Your task to perform on an android device: Open Android settings Image 0: 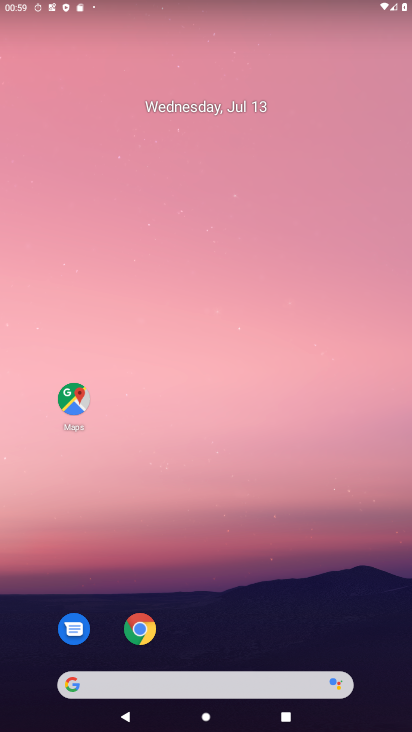
Step 0: drag from (206, 633) to (174, 368)
Your task to perform on an android device: Open Android settings Image 1: 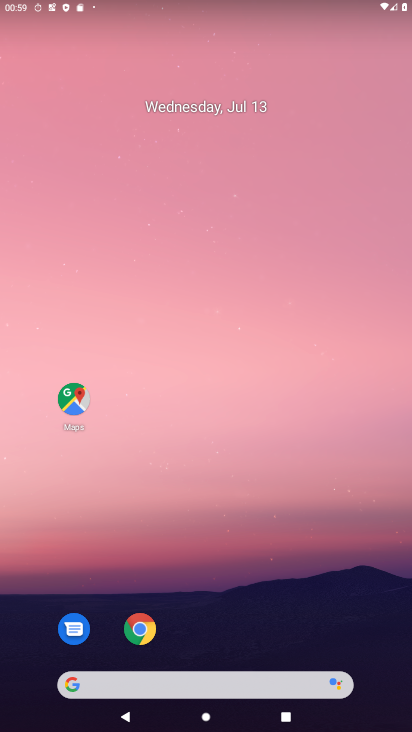
Step 1: drag from (255, 633) to (289, 1)
Your task to perform on an android device: Open Android settings Image 2: 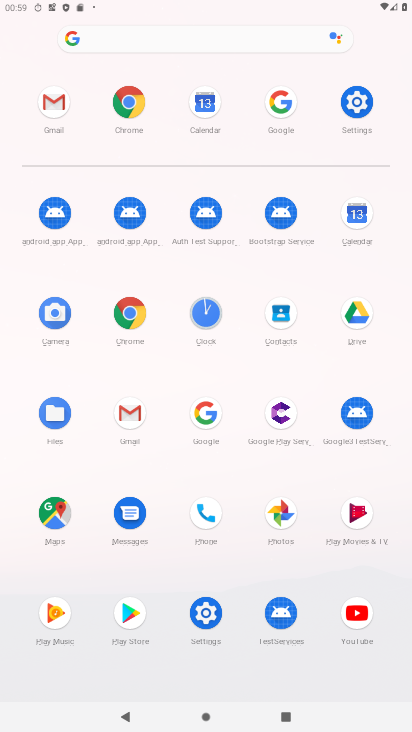
Step 2: click (360, 102)
Your task to perform on an android device: Open Android settings Image 3: 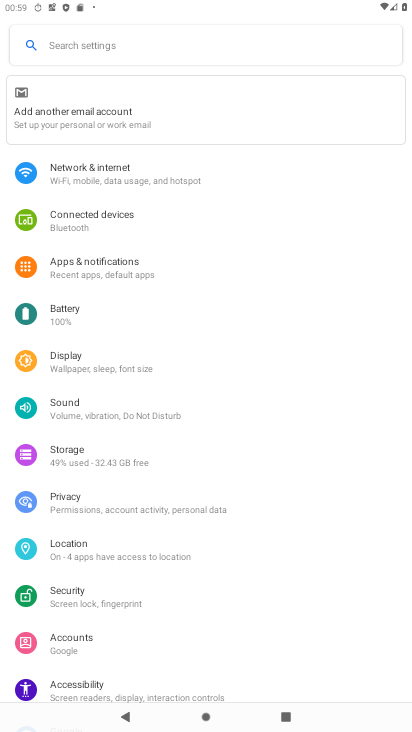
Step 3: task complete